Your task to perform on an android device: open app "Walmart Shopping & Grocery" Image 0: 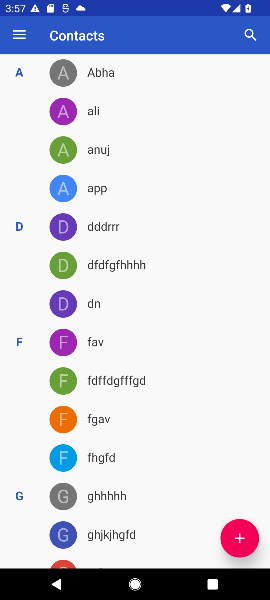
Step 0: press home button
Your task to perform on an android device: open app "Walmart Shopping & Grocery" Image 1: 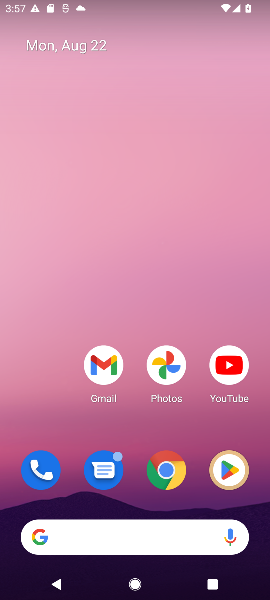
Step 1: drag from (134, 531) to (155, 152)
Your task to perform on an android device: open app "Walmart Shopping & Grocery" Image 2: 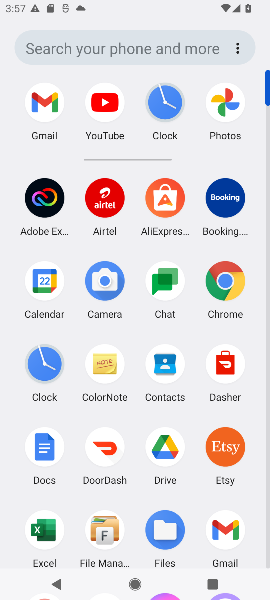
Step 2: drag from (133, 493) to (143, 73)
Your task to perform on an android device: open app "Walmart Shopping & Grocery" Image 3: 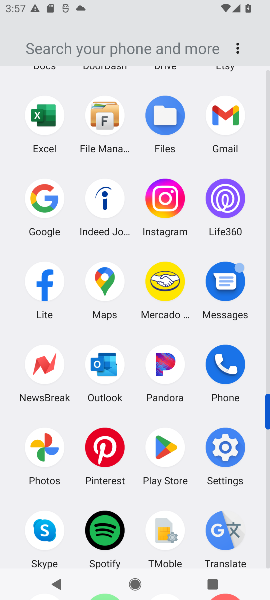
Step 3: click (159, 435)
Your task to perform on an android device: open app "Walmart Shopping & Grocery" Image 4: 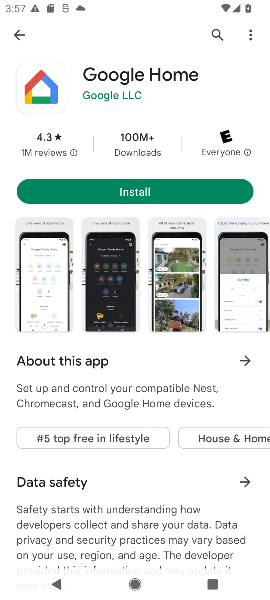
Step 4: click (17, 35)
Your task to perform on an android device: open app "Walmart Shopping & Grocery" Image 5: 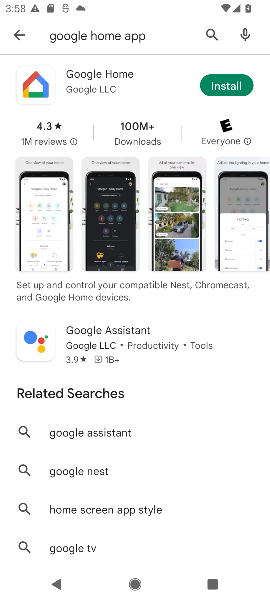
Step 5: click (17, 35)
Your task to perform on an android device: open app "Walmart Shopping & Grocery" Image 6: 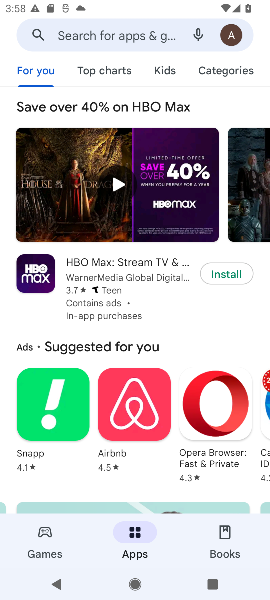
Step 6: click (112, 35)
Your task to perform on an android device: open app "Walmart Shopping & Grocery" Image 7: 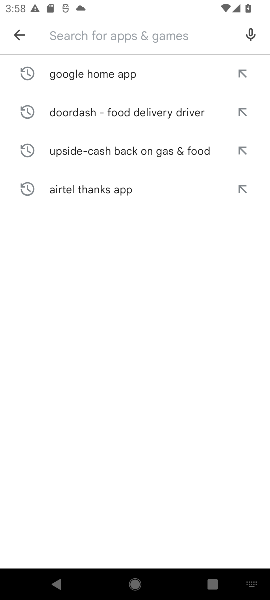
Step 7: type "Walmart Shopping & Grocery "
Your task to perform on an android device: open app "Walmart Shopping & Grocery" Image 8: 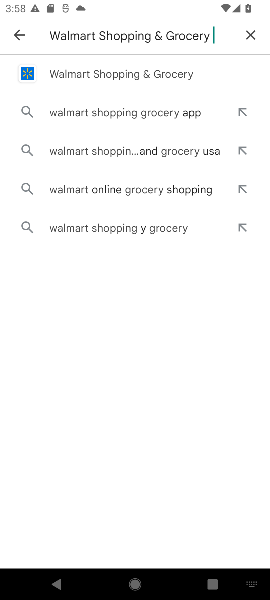
Step 8: click (102, 70)
Your task to perform on an android device: open app "Walmart Shopping & Grocery" Image 9: 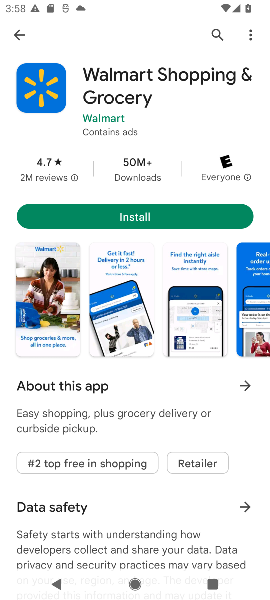
Step 9: click (138, 211)
Your task to perform on an android device: open app "Walmart Shopping & Grocery" Image 10: 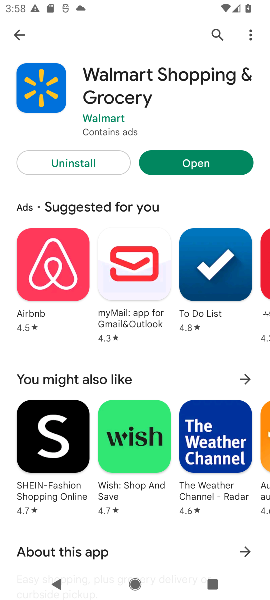
Step 10: click (185, 166)
Your task to perform on an android device: open app "Walmart Shopping & Grocery" Image 11: 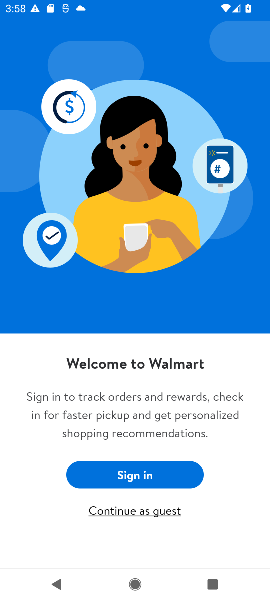
Step 11: task complete